Your task to perform on an android device: read, delete, or share a saved page in the chrome app Image 0: 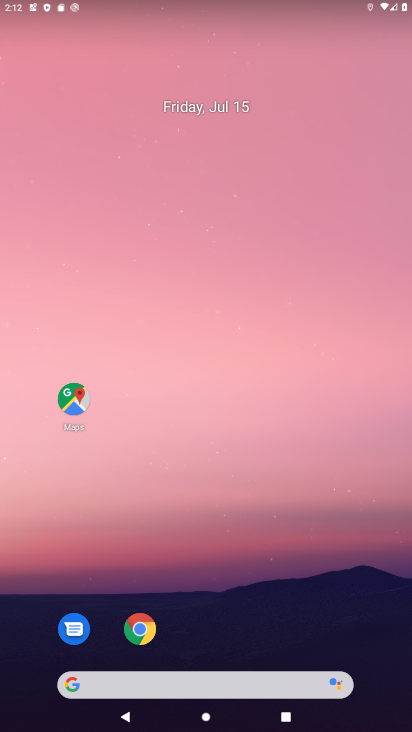
Step 0: click (145, 629)
Your task to perform on an android device: read, delete, or share a saved page in the chrome app Image 1: 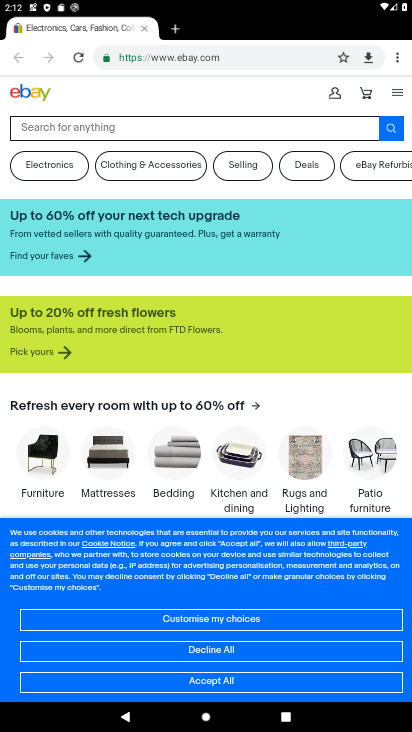
Step 1: click (392, 61)
Your task to perform on an android device: read, delete, or share a saved page in the chrome app Image 2: 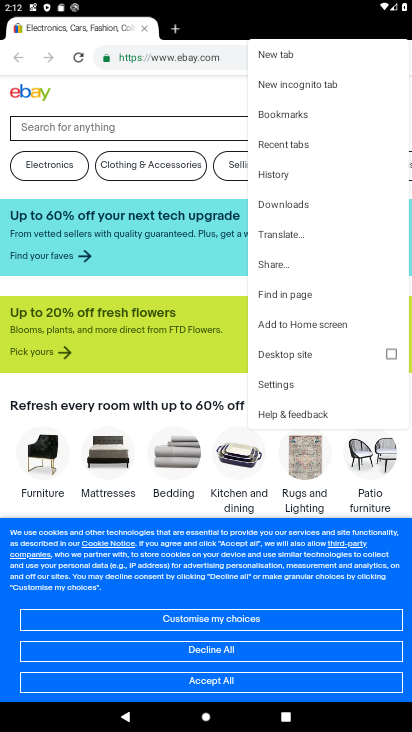
Step 2: click (296, 200)
Your task to perform on an android device: read, delete, or share a saved page in the chrome app Image 3: 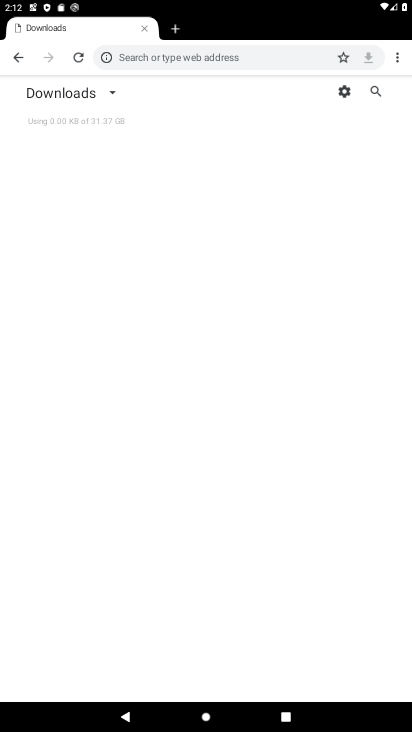
Step 3: task complete